Your task to perform on an android device: Clear the shopping cart on ebay. Search for "jbl charge 4" on ebay, select the first entry, and add it to the cart. Image 0: 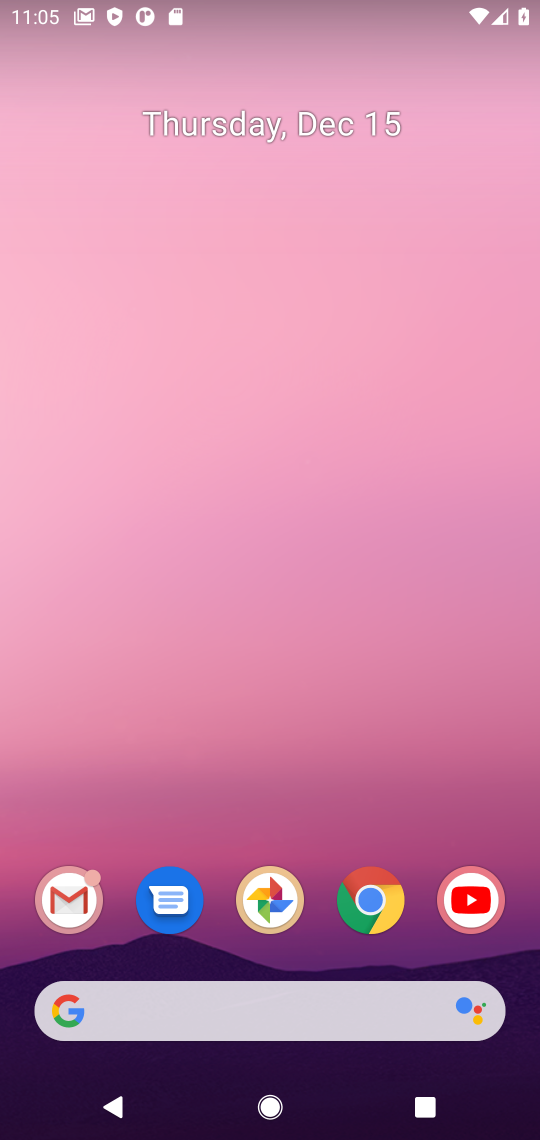
Step 0: click (357, 912)
Your task to perform on an android device: Clear the shopping cart on ebay. Search for "jbl charge 4" on ebay, select the first entry, and add it to the cart. Image 1: 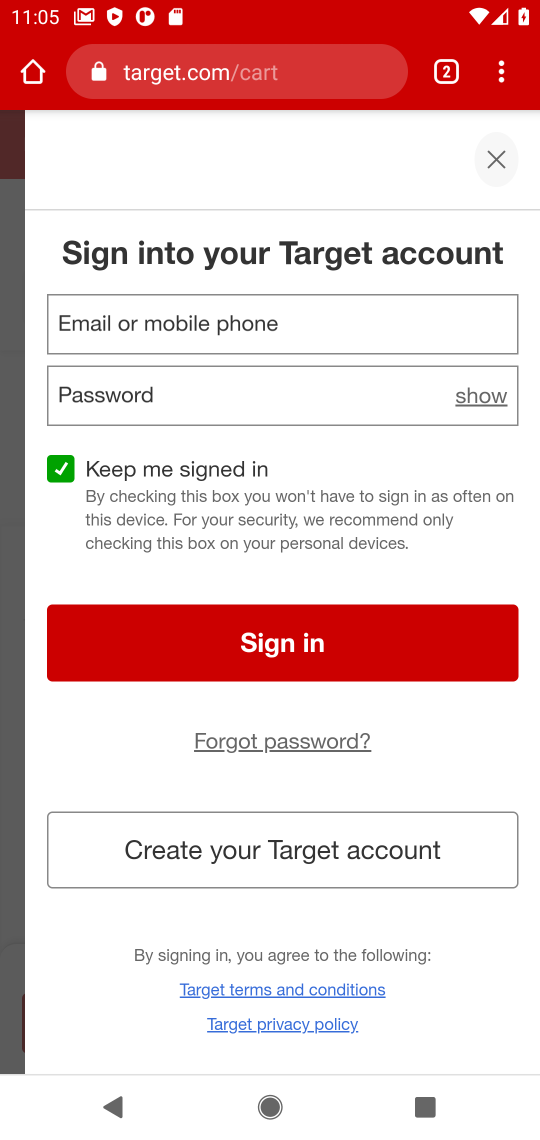
Step 1: click (194, 86)
Your task to perform on an android device: Clear the shopping cart on ebay. Search for "jbl charge 4" on ebay, select the first entry, and add it to the cart. Image 2: 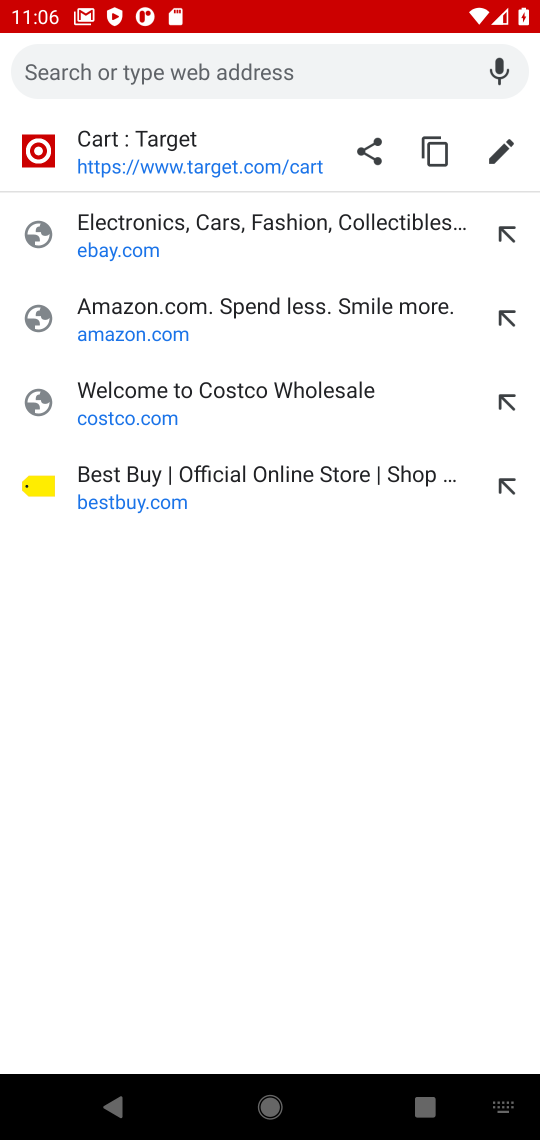
Step 2: click (130, 249)
Your task to perform on an android device: Clear the shopping cart on ebay. Search for "jbl charge 4" on ebay, select the first entry, and add it to the cart. Image 3: 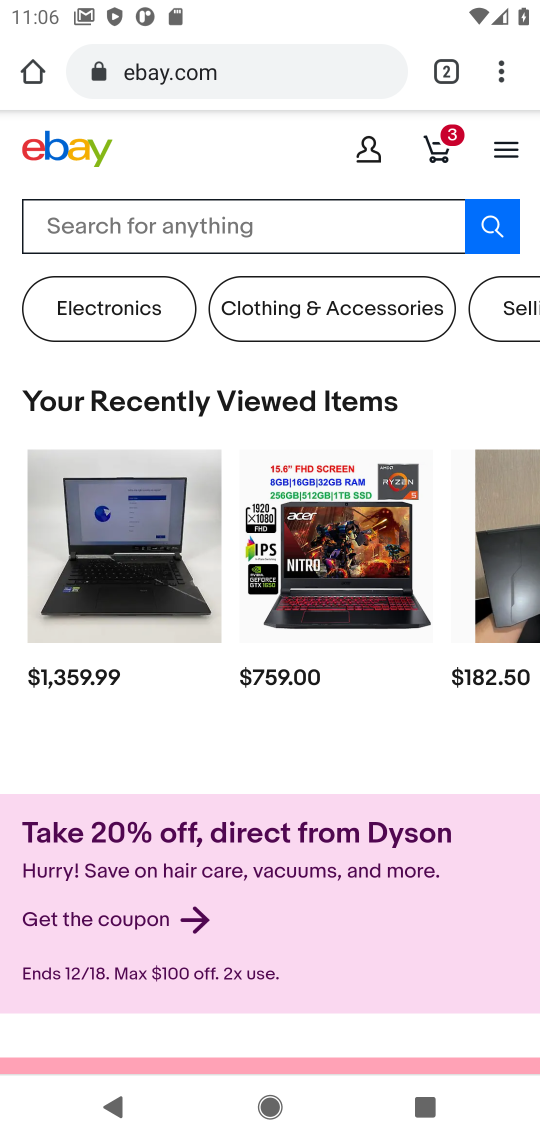
Step 3: click (317, 225)
Your task to perform on an android device: Clear the shopping cart on ebay. Search for "jbl charge 4" on ebay, select the first entry, and add it to the cart. Image 4: 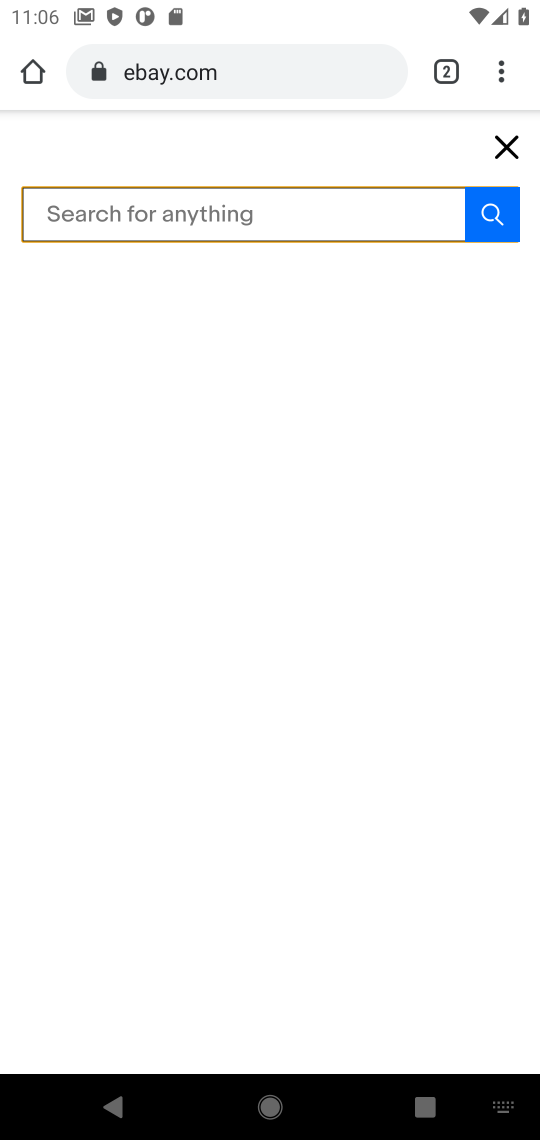
Step 4: type "jbl charge 4"
Your task to perform on an android device: Clear the shopping cart on ebay. Search for "jbl charge 4" on ebay, select the first entry, and add it to the cart. Image 5: 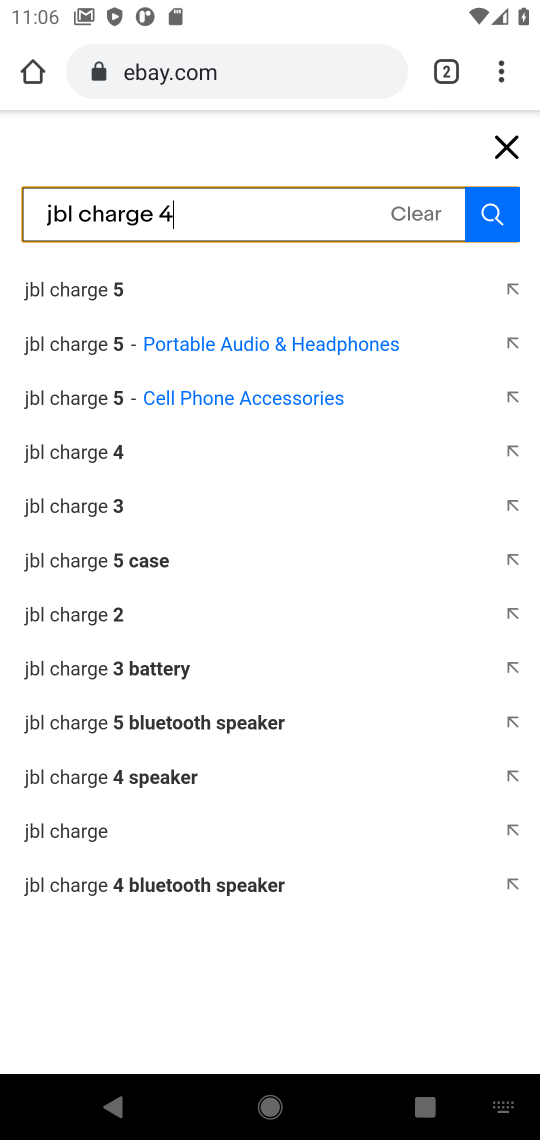
Step 5: click (511, 211)
Your task to perform on an android device: Clear the shopping cart on ebay. Search for "jbl charge 4" on ebay, select the first entry, and add it to the cart. Image 6: 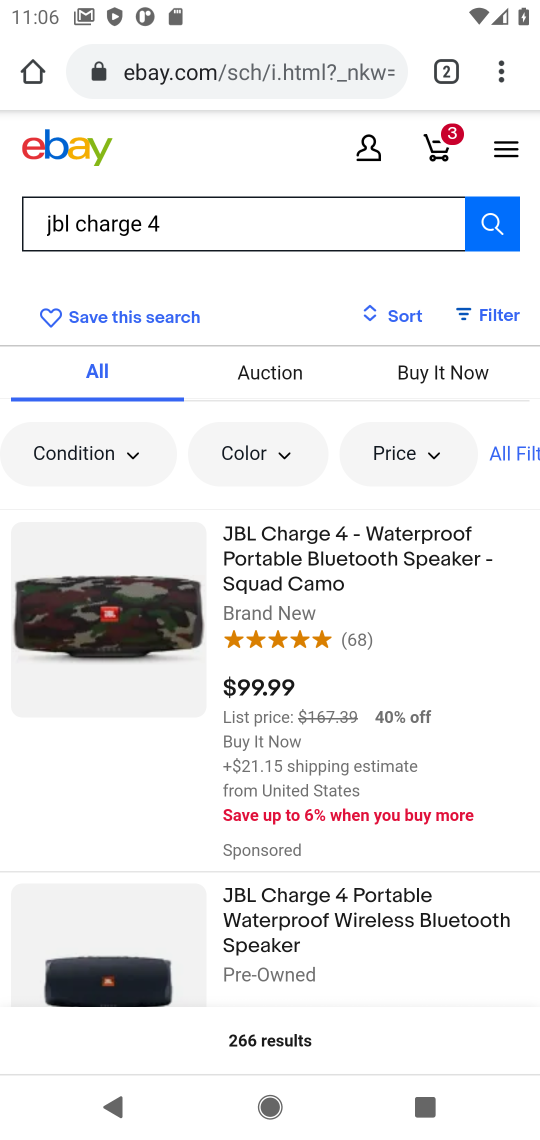
Step 6: click (274, 600)
Your task to perform on an android device: Clear the shopping cart on ebay. Search for "jbl charge 4" on ebay, select the first entry, and add it to the cart. Image 7: 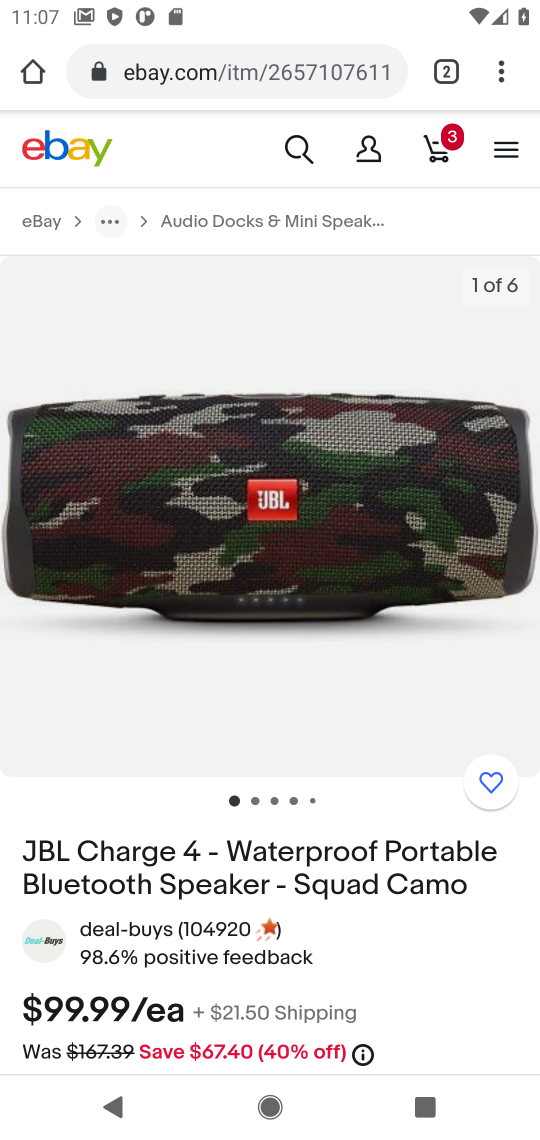
Step 7: click (239, 852)
Your task to perform on an android device: Clear the shopping cart on ebay. Search for "jbl charge 4" on ebay, select the first entry, and add it to the cart. Image 8: 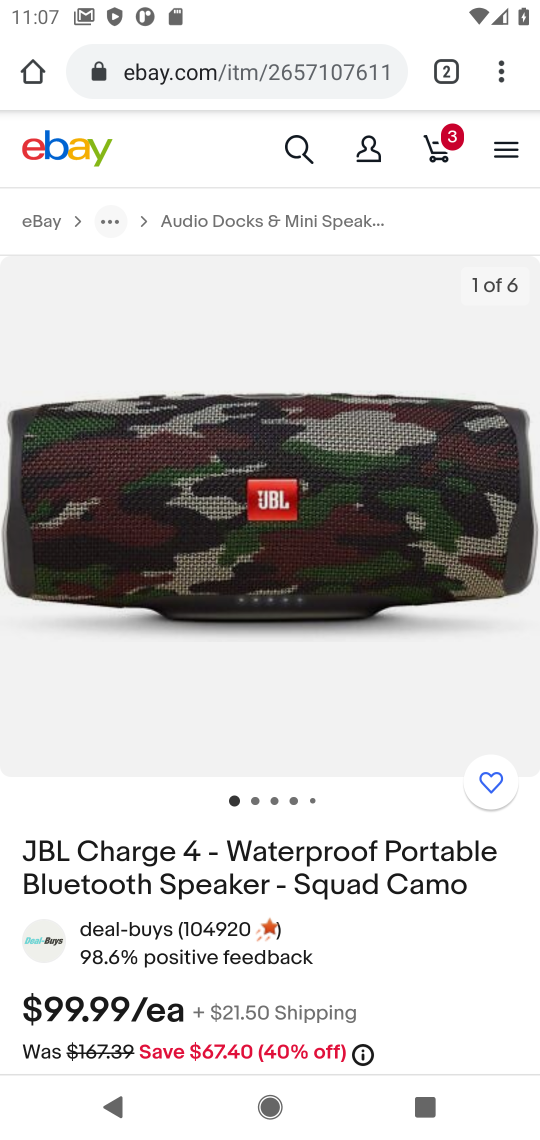
Step 8: click (239, 852)
Your task to perform on an android device: Clear the shopping cart on ebay. Search for "jbl charge 4" on ebay, select the first entry, and add it to the cart. Image 9: 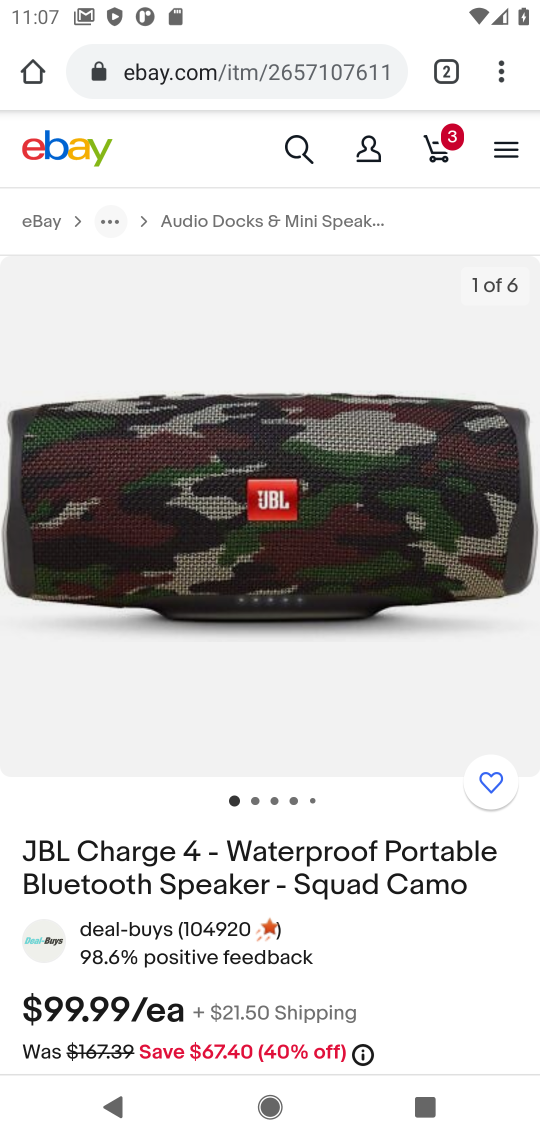
Step 9: drag from (308, 815) to (343, 1136)
Your task to perform on an android device: Clear the shopping cart on ebay. Search for "jbl charge 4" on ebay, select the first entry, and add it to the cart. Image 10: 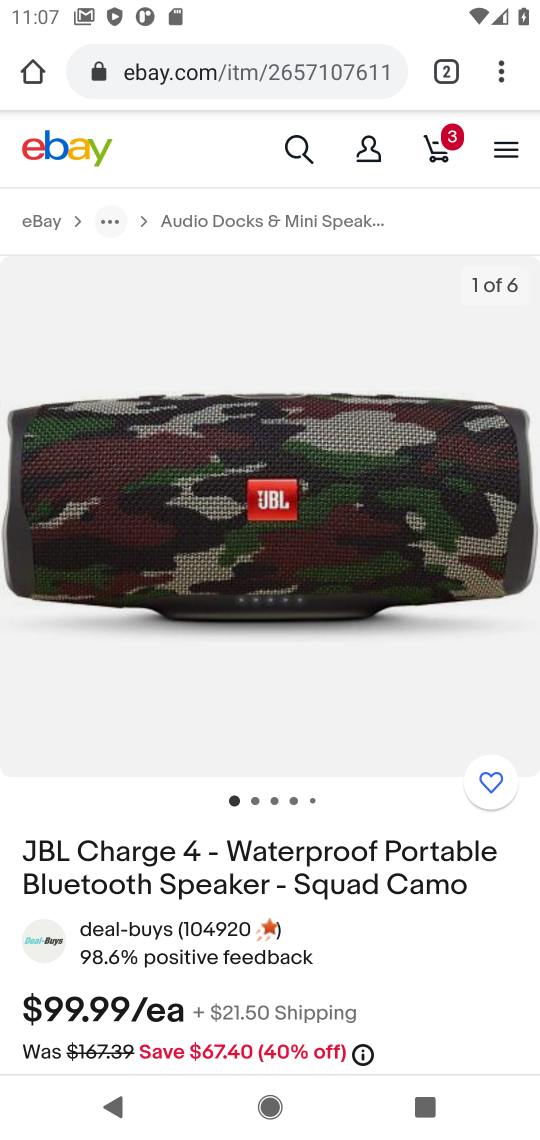
Step 10: click (447, 133)
Your task to perform on an android device: Clear the shopping cart on ebay. Search for "jbl charge 4" on ebay, select the first entry, and add it to the cart. Image 11: 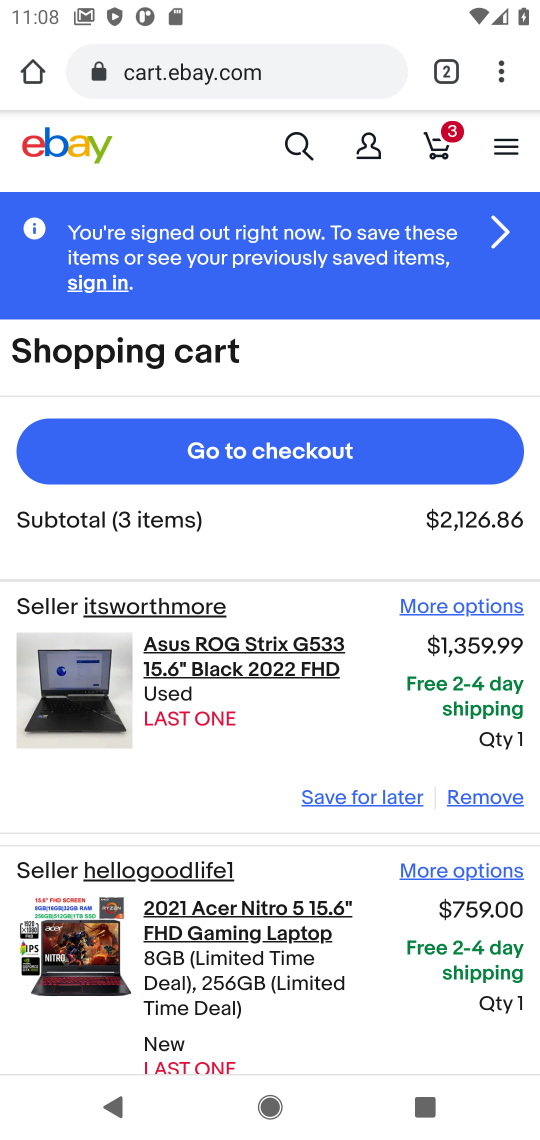
Step 11: click (475, 798)
Your task to perform on an android device: Clear the shopping cart on ebay. Search for "jbl charge 4" on ebay, select the first entry, and add it to the cart. Image 12: 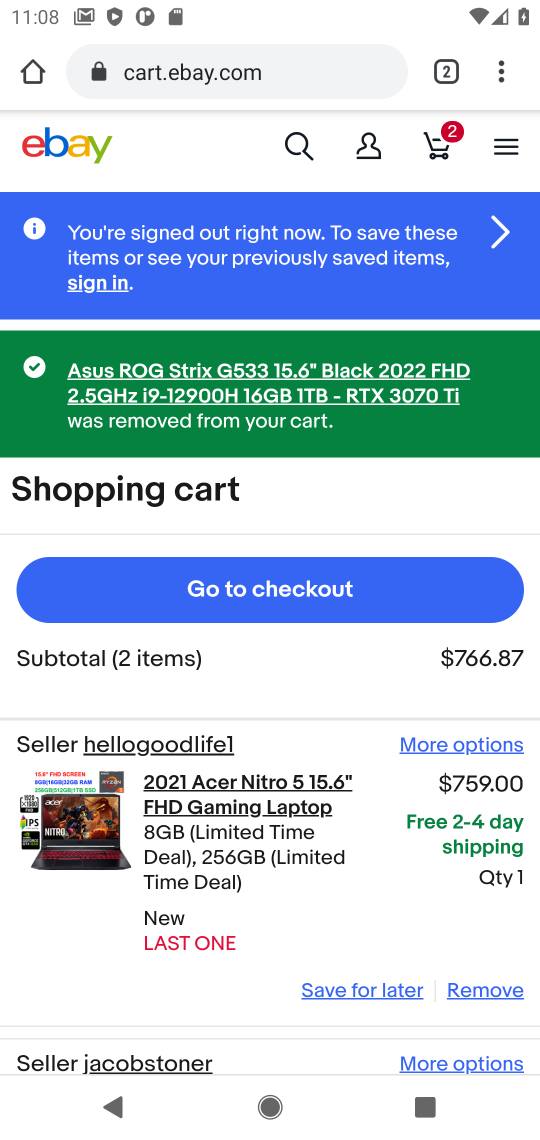
Step 12: click (464, 986)
Your task to perform on an android device: Clear the shopping cart on ebay. Search for "jbl charge 4" on ebay, select the first entry, and add it to the cart. Image 13: 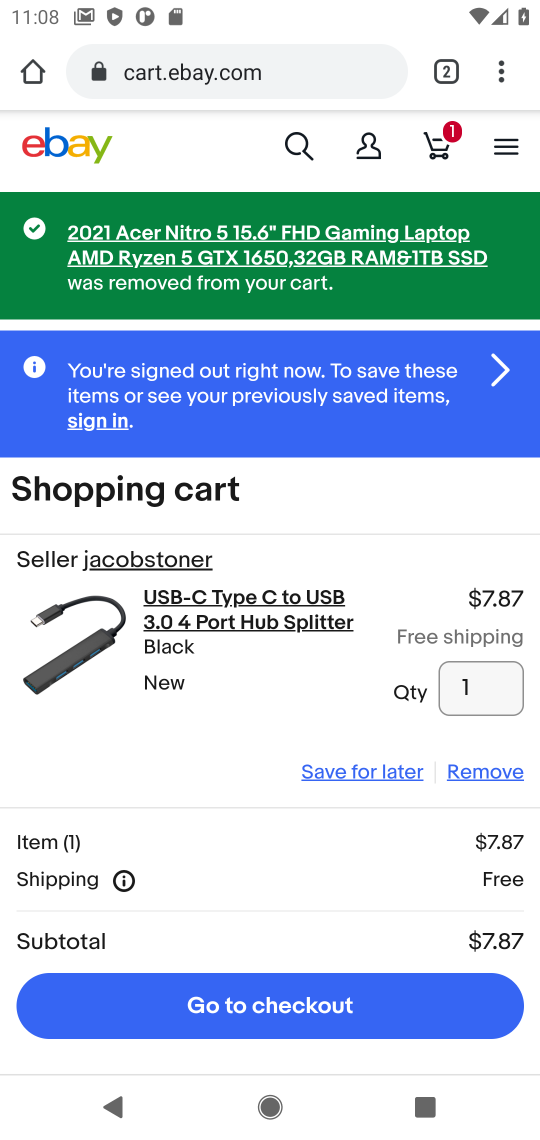
Step 13: click (486, 776)
Your task to perform on an android device: Clear the shopping cart on ebay. Search for "jbl charge 4" on ebay, select the first entry, and add it to the cart. Image 14: 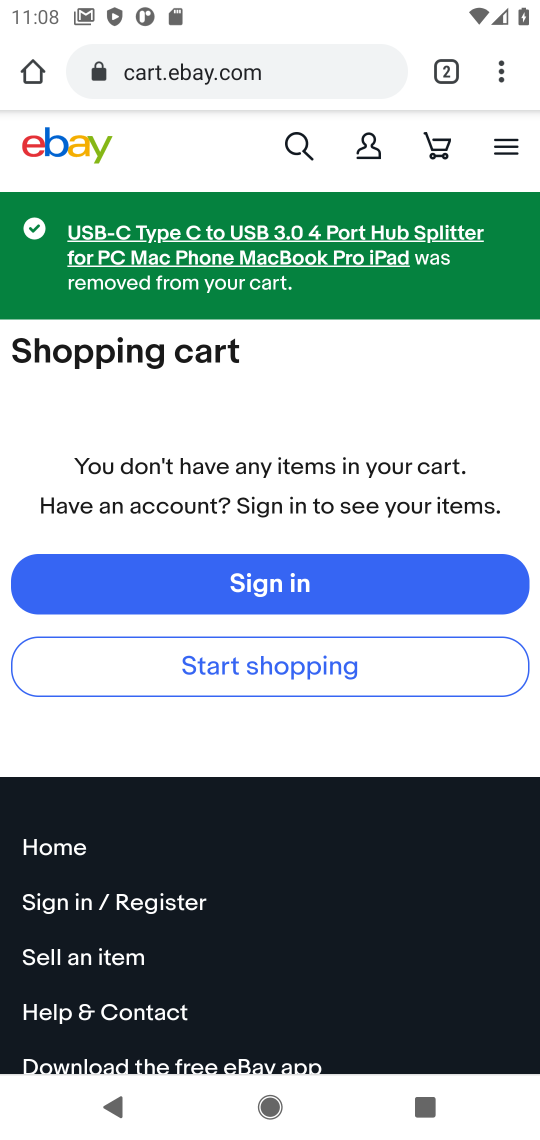
Step 14: click (293, 67)
Your task to perform on an android device: Clear the shopping cart on ebay. Search for "jbl charge 4" on ebay, select the first entry, and add it to the cart. Image 15: 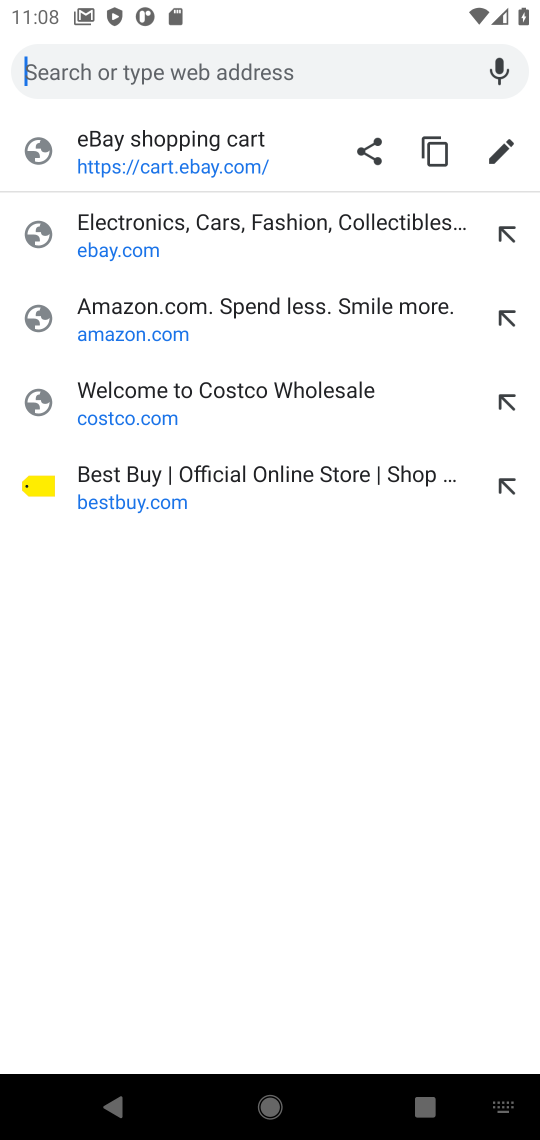
Step 15: type "ebay"
Your task to perform on an android device: Clear the shopping cart on ebay. Search for "jbl charge 4" on ebay, select the first entry, and add it to the cart. Image 16: 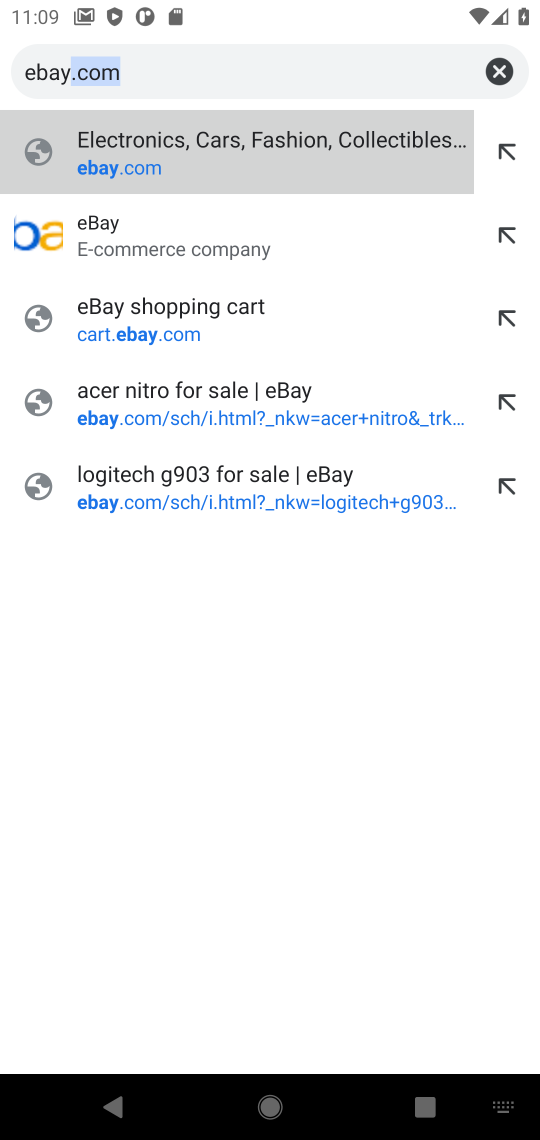
Step 16: click (144, 155)
Your task to perform on an android device: Clear the shopping cart on ebay. Search for "jbl charge 4" on ebay, select the first entry, and add it to the cart. Image 17: 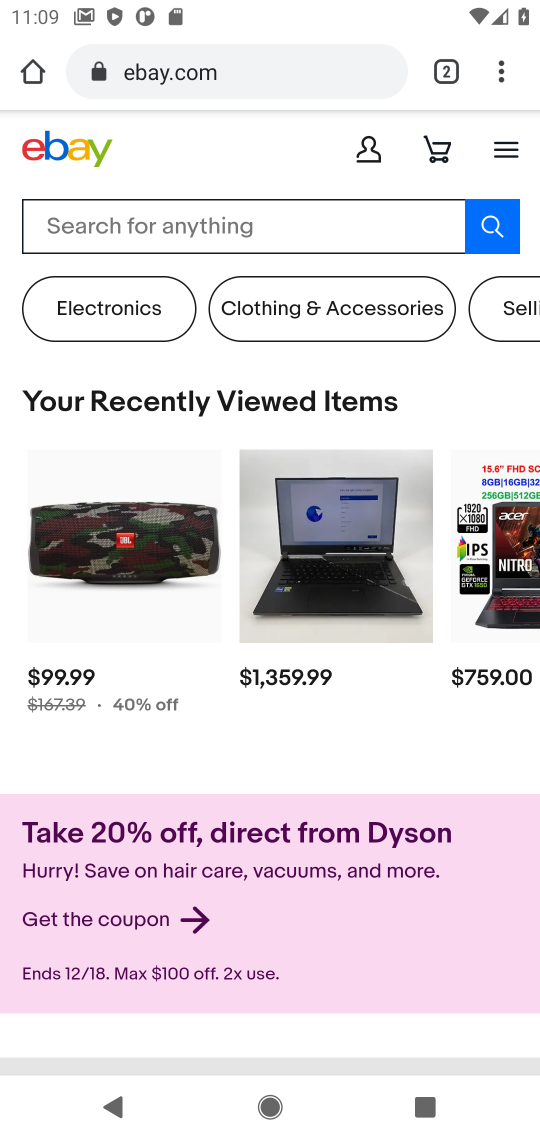
Step 17: click (114, 236)
Your task to perform on an android device: Clear the shopping cart on ebay. Search for "jbl charge 4" on ebay, select the first entry, and add it to the cart. Image 18: 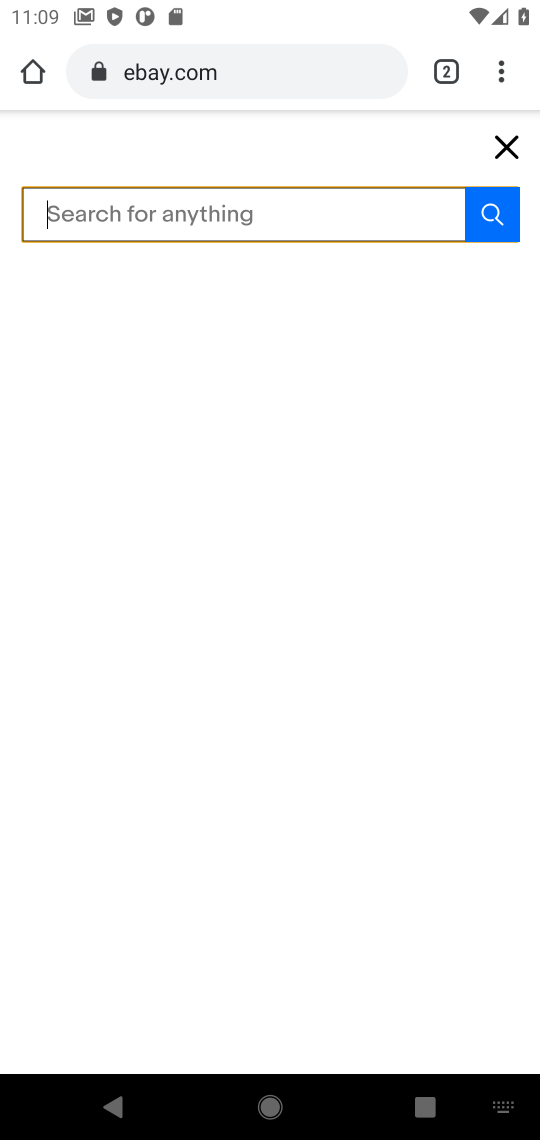
Step 18: type "jbl charge 4"
Your task to perform on an android device: Clear the shopping cart on ebay. Search for "jbl charge 4" on ebay, select the first entry, and add it to the cart. Image 19: 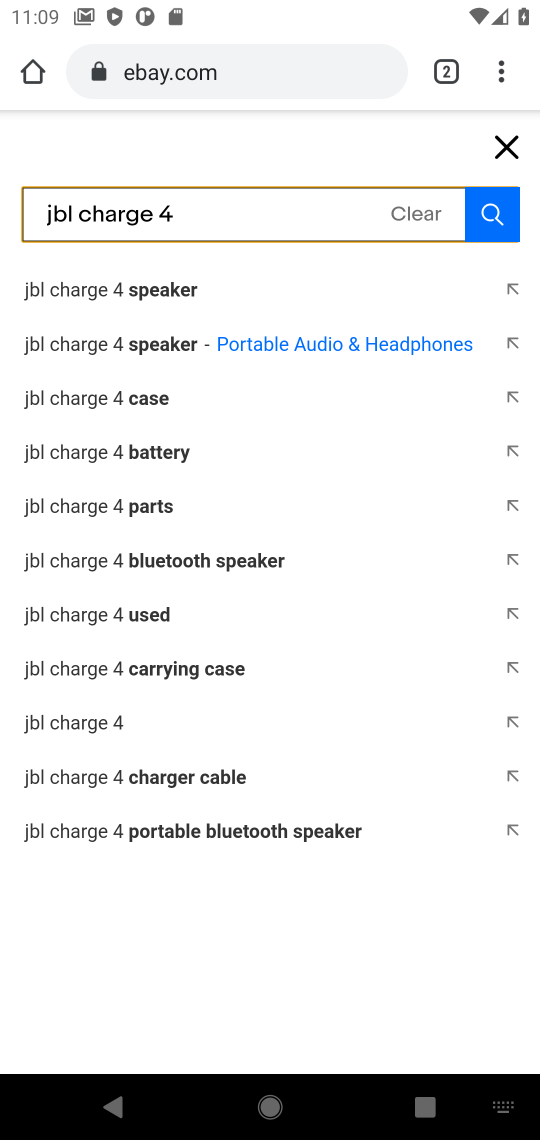
Step 19: click (501, 217)
Your task to perform on an android device: Clear the shopping cart on ebay. Search for "jbl charge 4" on ebay, select the first entry, and add it to the cart. Image 20: 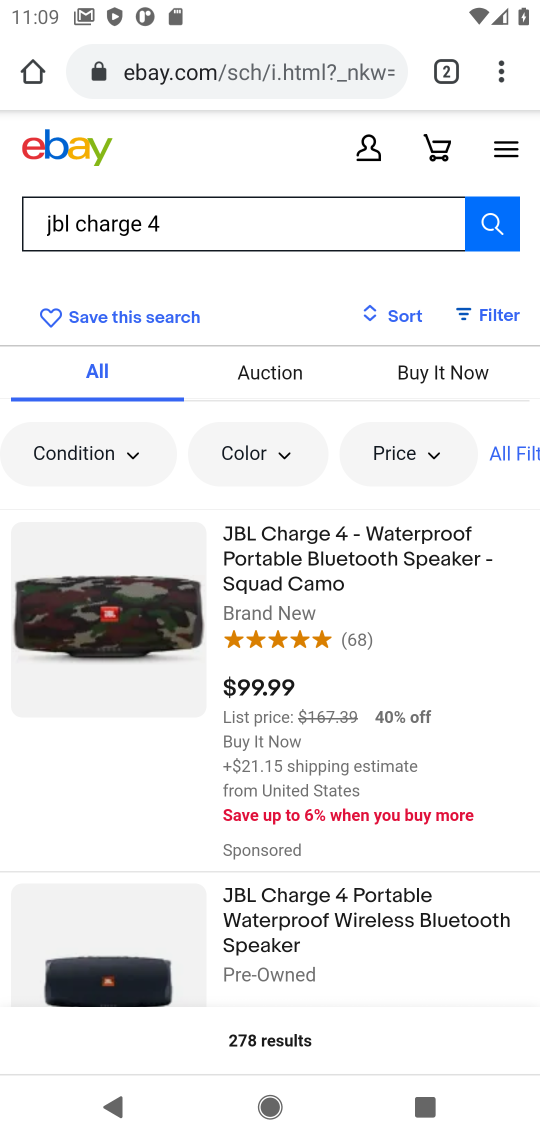
Step 20: click (306, 559)
Your task to perform on an android device: Clear the shopping cart on ebay. Search for "jbl charge 4" on ebay, select the first entry, and add it to the cart. Image 21: 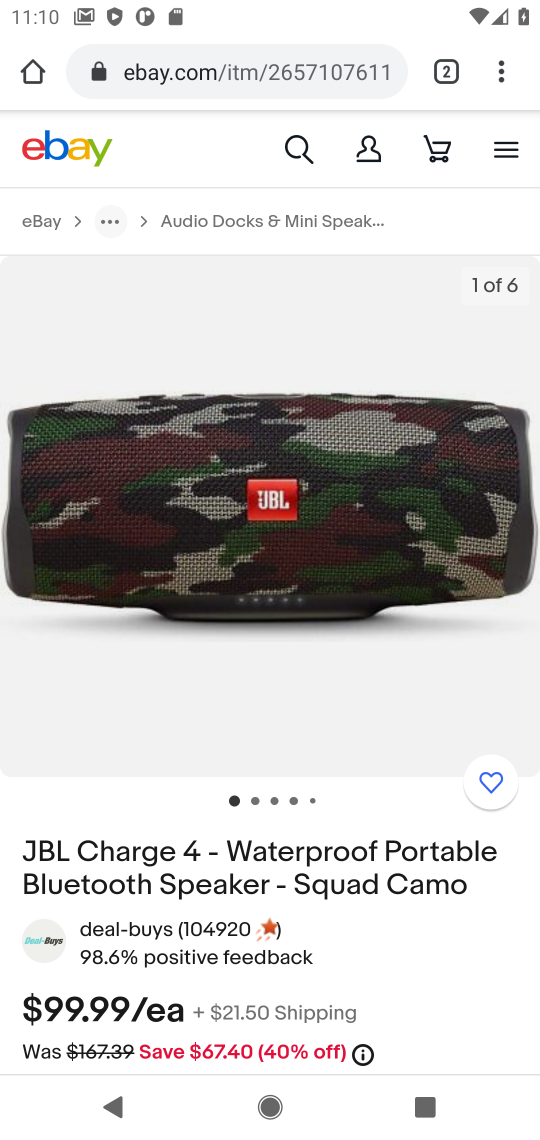
Step 21: drag from (446, 981) to (333, 473)
Your task to perform on an android device: Clear the shopping cart on ebay. Search for "jbl charge 4" on ebay, select the first entry, and add it to the cart. Image 22: 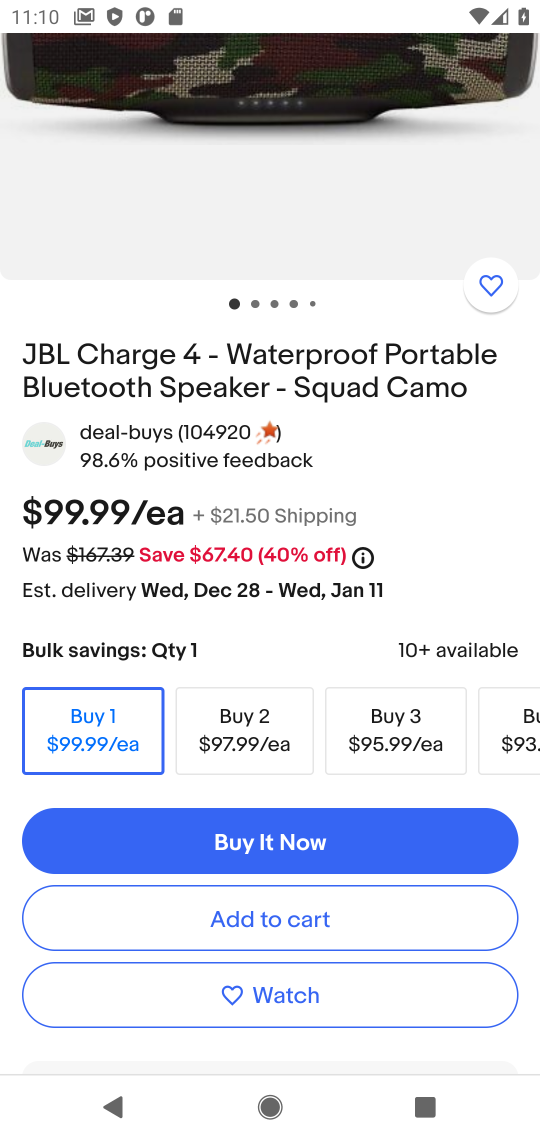
Step 22: click (313, 907)
Your task to perform on an android device: Clear the shopping cart on ebay. Search for "jbl charge 4" on ebay, select the first entry, and add it to the cart. Image 23: 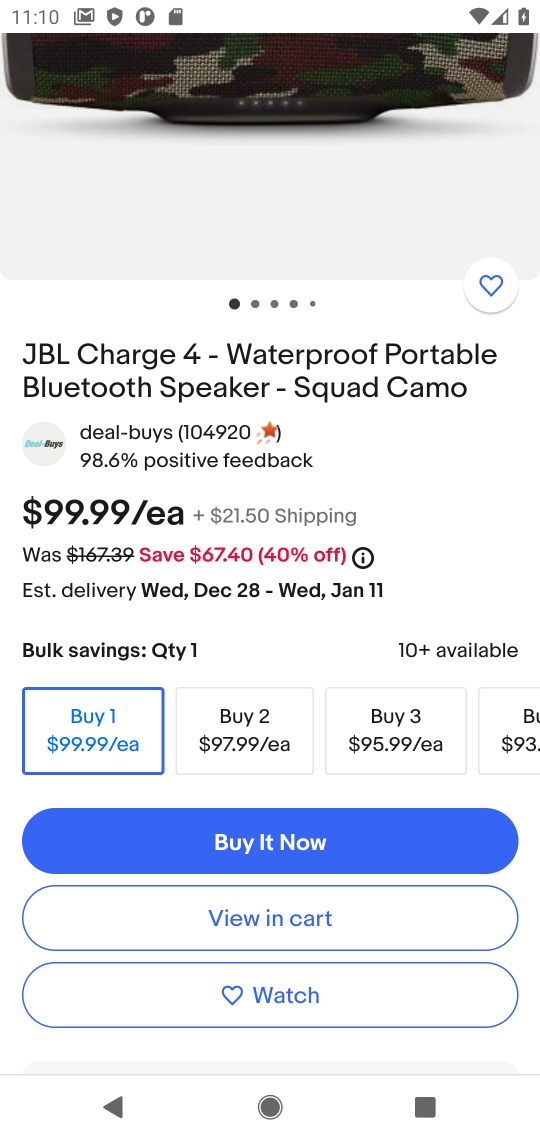
Step 23: click (269, 932)
Your task to perform on an android device: Clear the shopping cart on ebay. Search for "jbl charge 4" on ebay, select the first entry, and add it to the cart. Image 24: 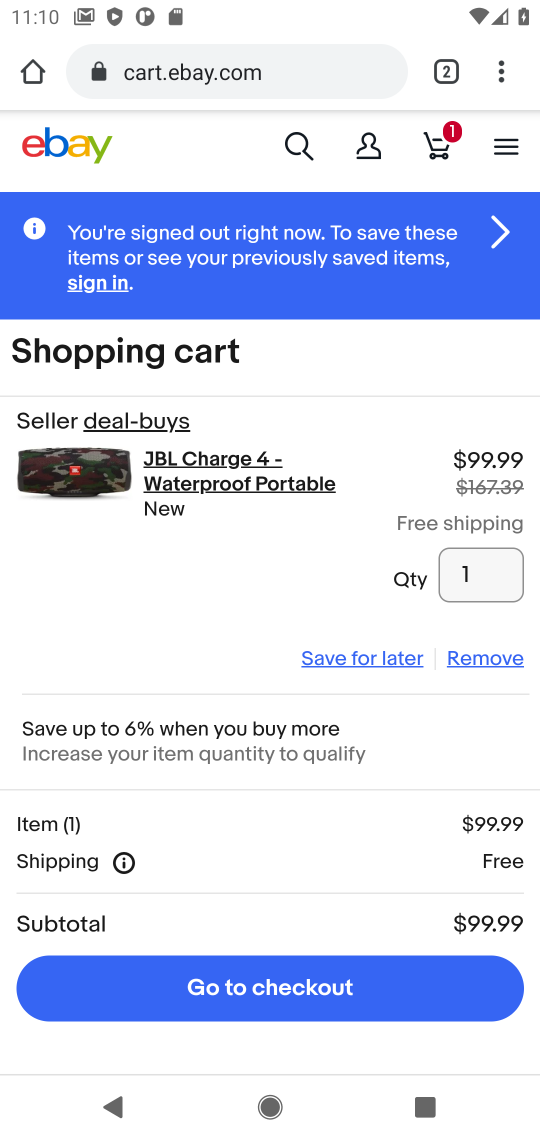
Step 24: task complete